Your task to perform on an android device: open a bookmark in the chrome app Image 0: 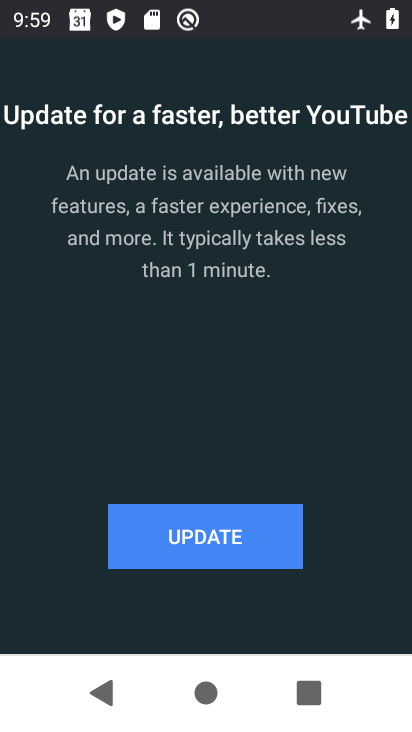
Step 0: press home button
Your task to perform on an android device: open a bookmark in the chrome app Image 1: 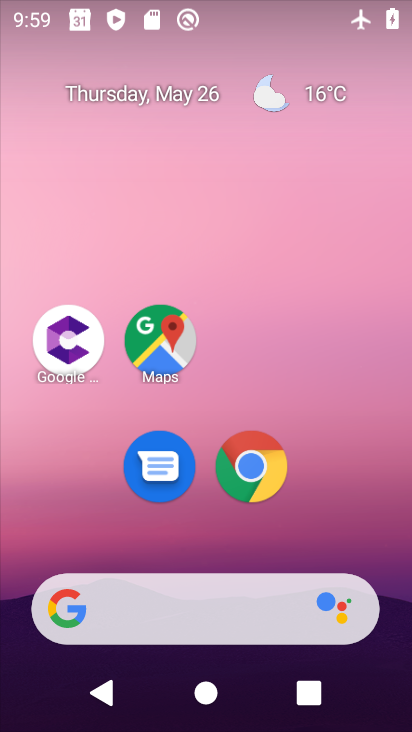
Step 1: click (261, 476)
Your task to perform on an android device: open a bookmark in the chrome app Image 2: 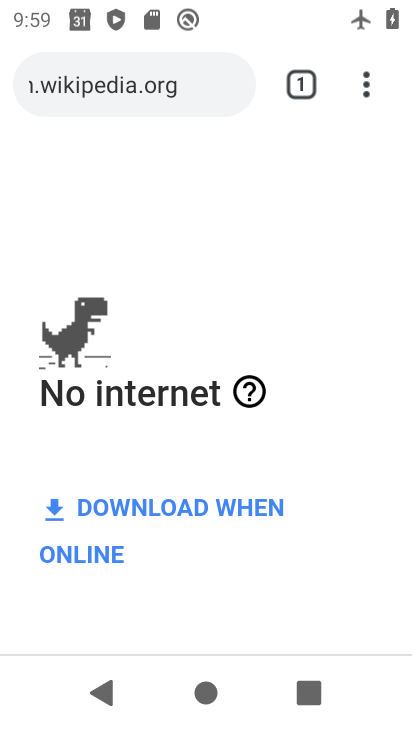
Step 2: click (367, 77)
Your task to perform on an android device: open a bookmark in the chrome app Image 3: 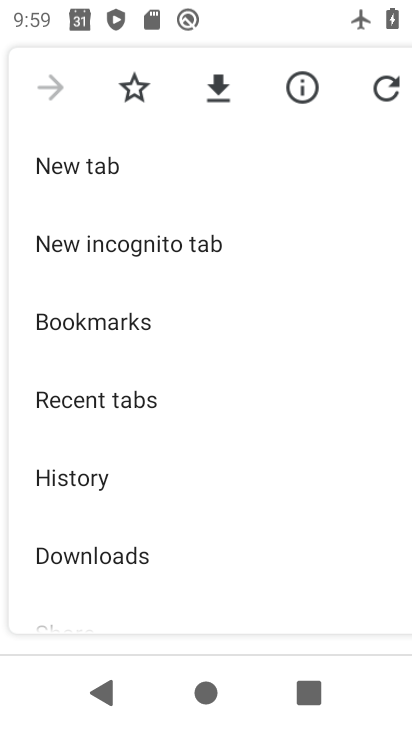
Step 3: click (125, 317)
Your task to perform on an android device: open a bookmark in the chrome app Image 4: 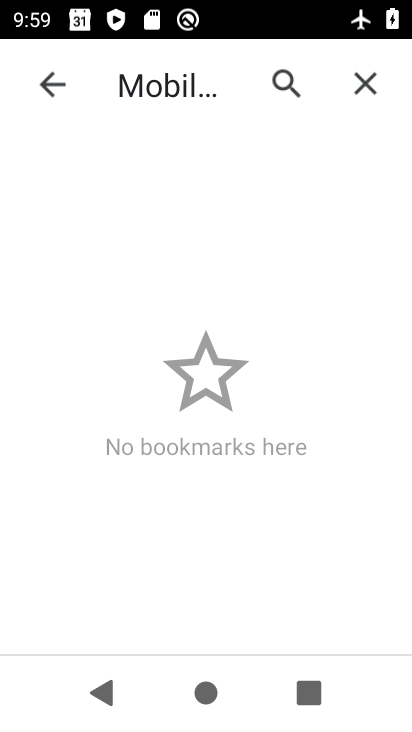
Step 4: task complete